Your task to perform on an android device: set the stopwatch Image 0: 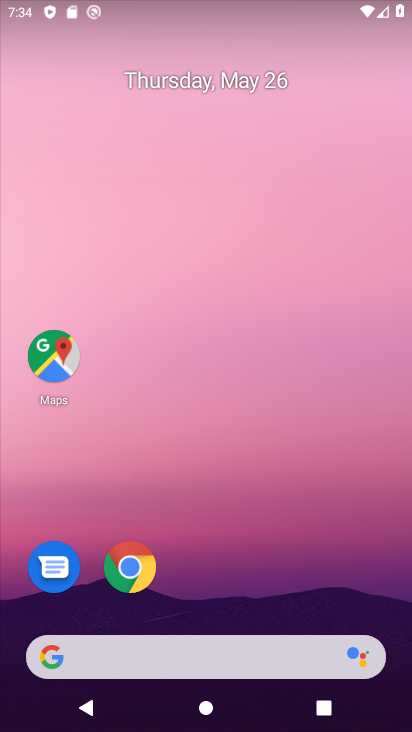
Step 0: drag from (268, 447) to (385, 73)
Your task to perform on an android device: set the stopwatch Image 1: 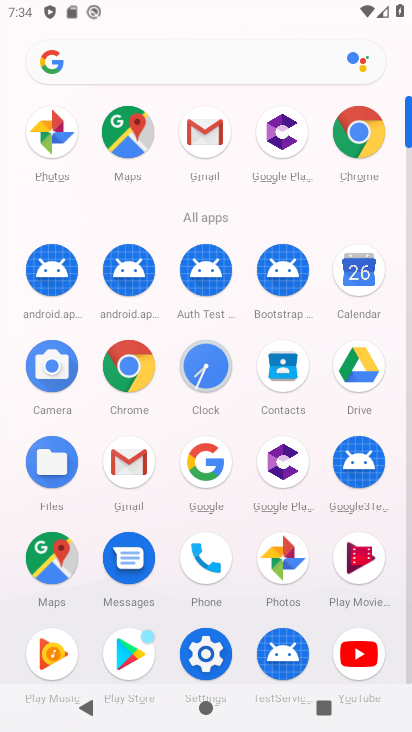
Step 1: click (214, 368)
Your task to perform on an android device: set the stopwatch Image 2: 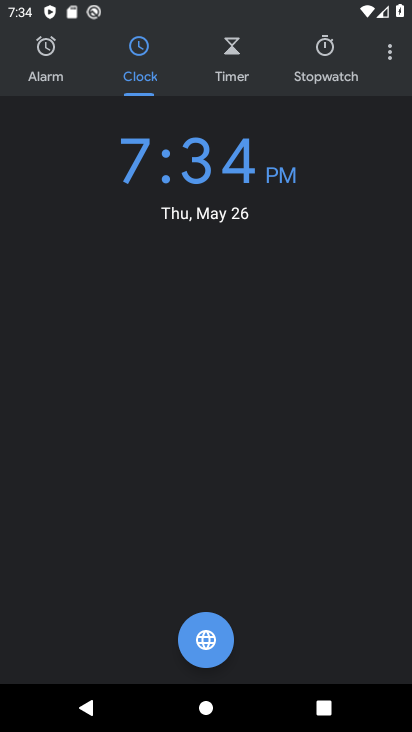
Step 2: click (318, 57)
Your task to perform on an android device: set the stopwatch Image 3: 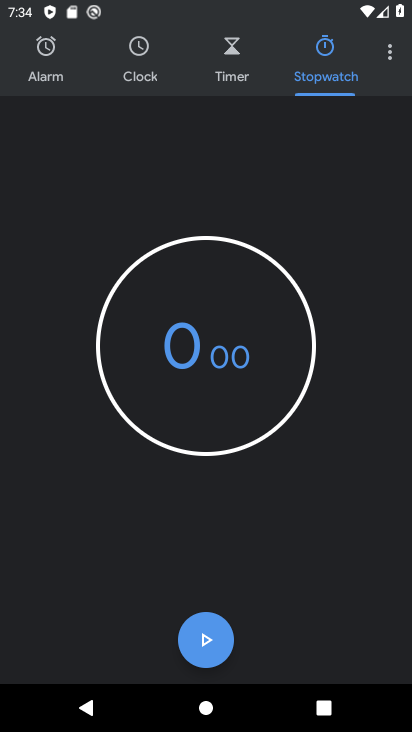
Step 3: click (216, 392)
Your task to perform on an android device: set the stopwatch Image 4: 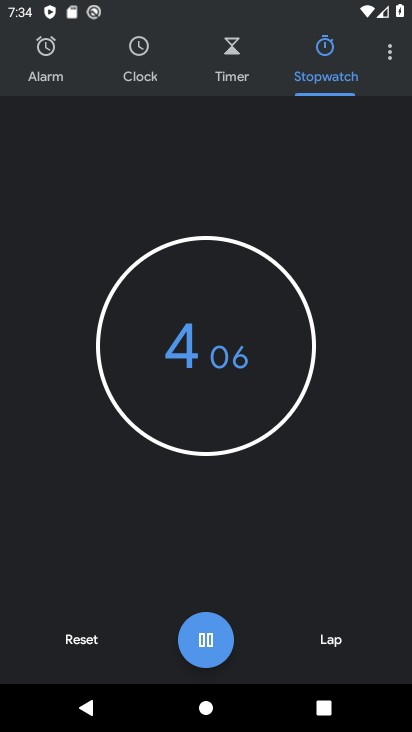
Step 4: click (216, 392)
Your task to perform on an android device: set the stopwatch Image 5: 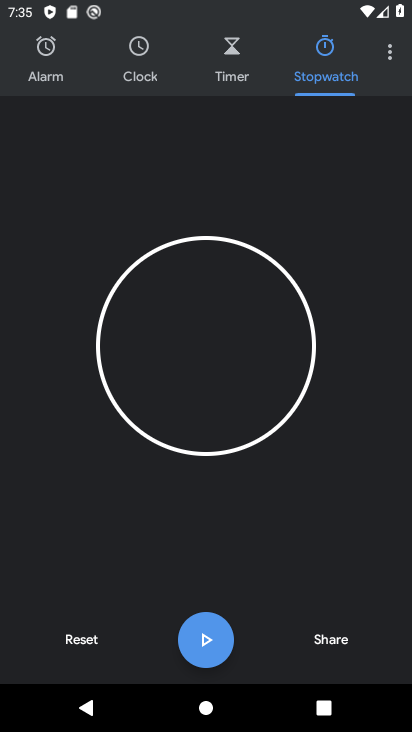
Step 5: task complete